Your task to perform on an android device: Go to Maps Image 0: 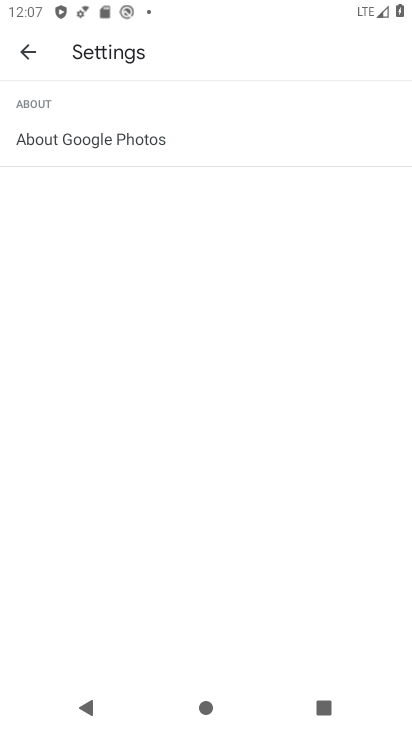
Step 0: press home button
Your task to perform on an android device: Go to Maps Image 1: 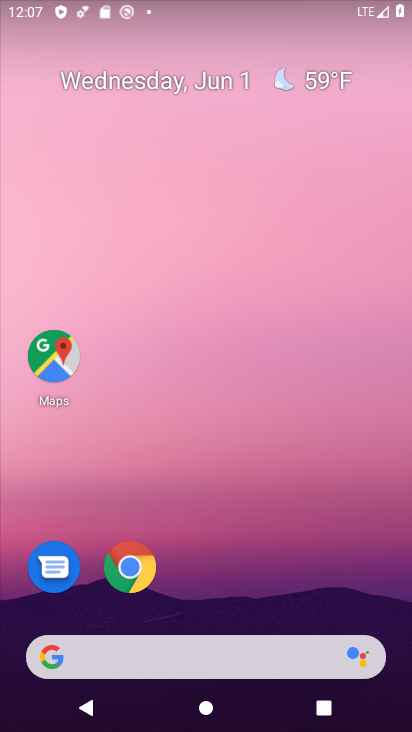
Step 1: click (55, 366)
Your task to perform on an android device: Go to Maps Image 2: 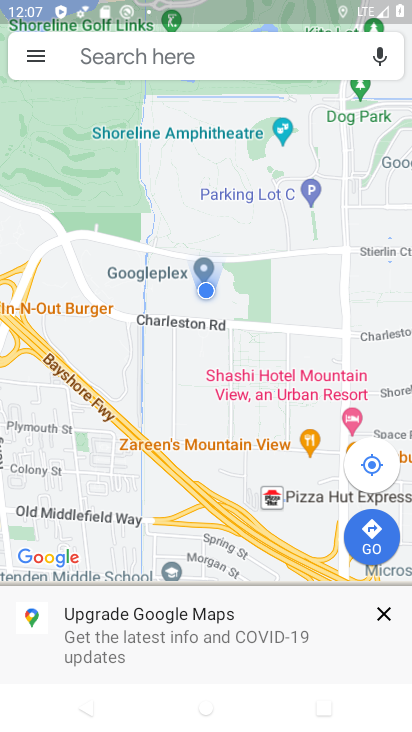
Step 2: task complete